Your task to perform on an android device: Open calendar and show me the third week of next month Image 0: 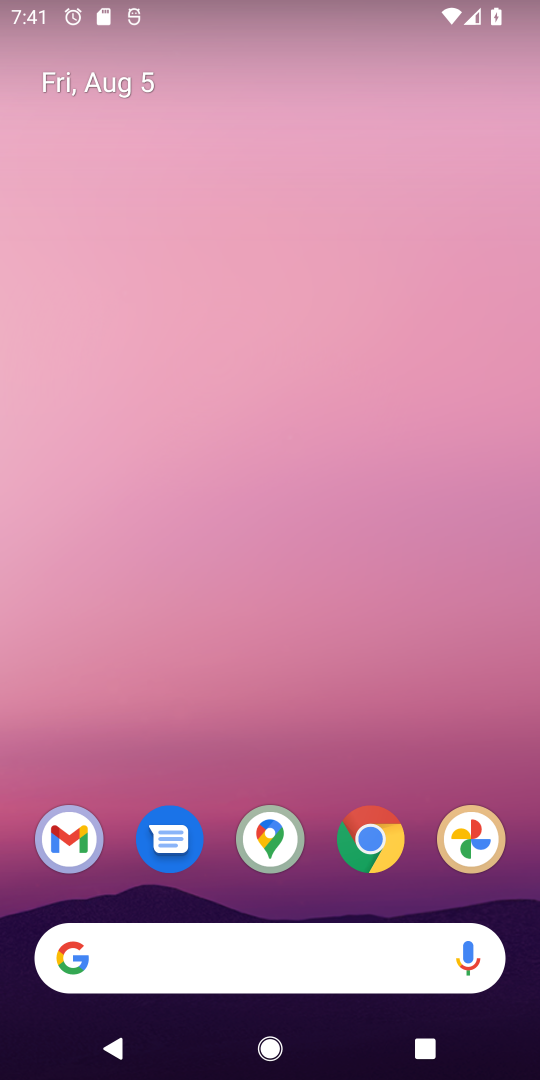
Step 0: drag from (265, 755) to (281, 2)
Your task to perform on an android device: Open calendar and show me the third week of next month Image 1: 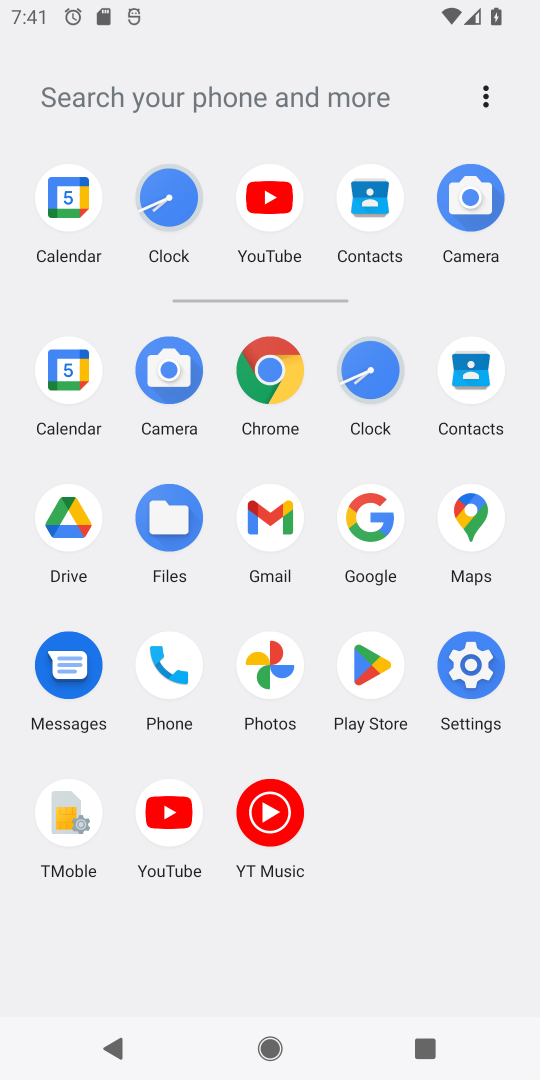
Step 1: click (49, 366)
Your task to perform on an android device: Open calendar and show me the third week of next month Image 2: 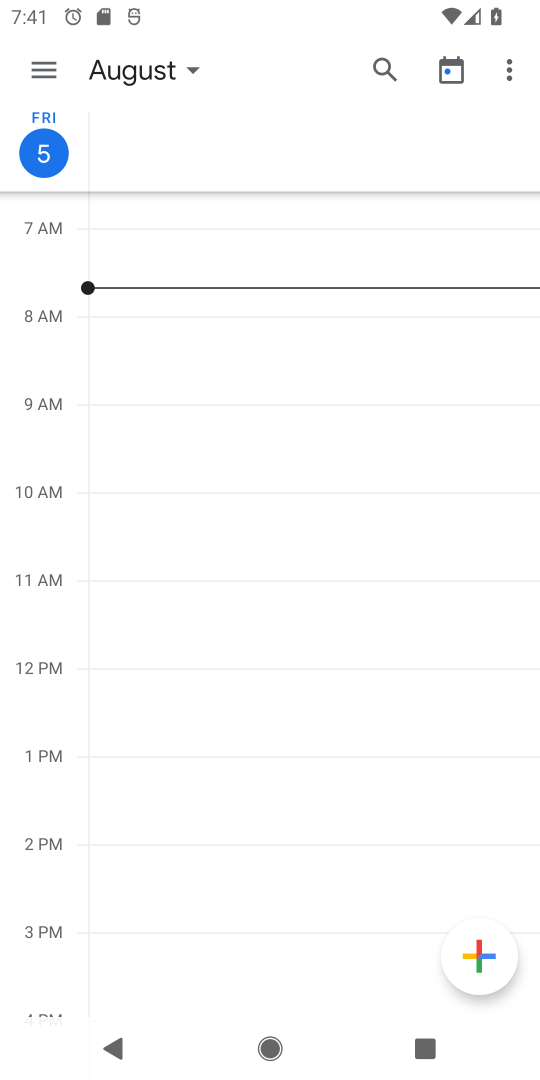
Step 2: click (194, 82)
Your task to perform on an android device: Open calendar and show me the third week of next month Image 3: 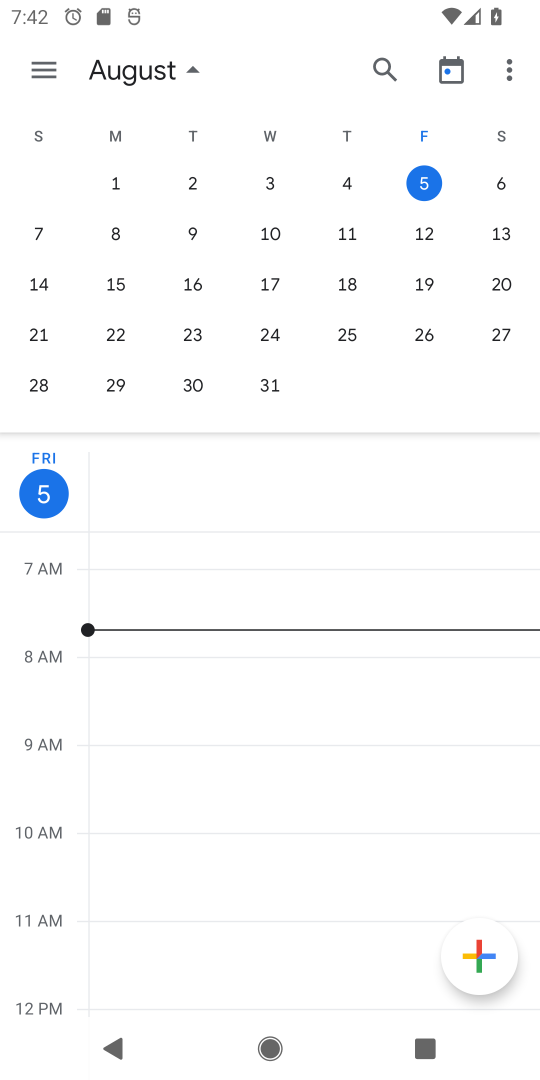
Step 3: drag from (458, 233) to (99, 235)
Your task to perform on an android device: Open calendar and show me the third week of next month Image 4: 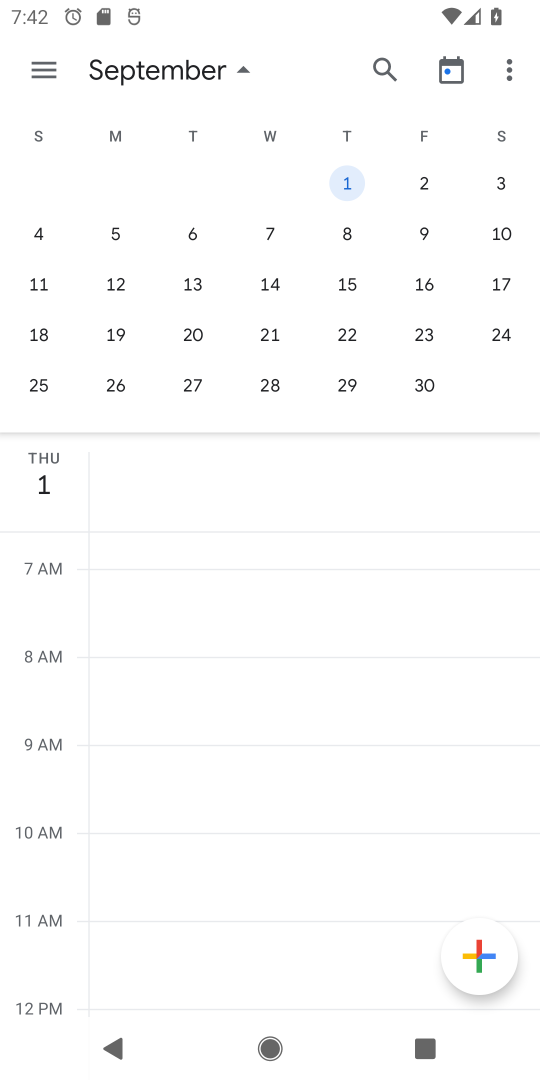
Step 4: click (41, 284)
Your task to perform on an android device: Open calendar and show me the third week of next month Image 5: 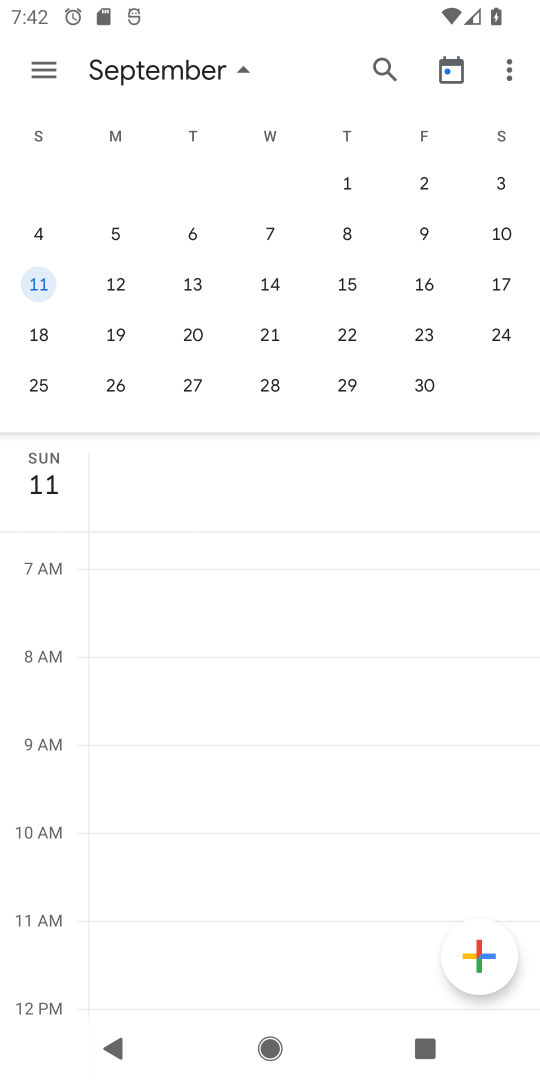
Step 5: task complete